Your task to perform on an android device: Search for a 100 ft extension cord Image 0: 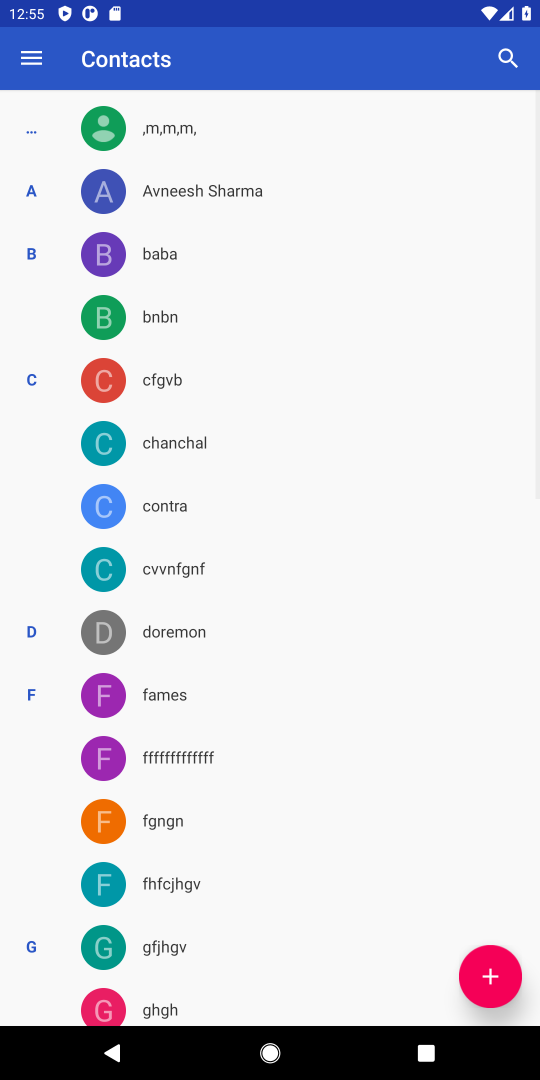
Step 0: press home button
Your task to perform on an android device: Search for a 100 ft extension cord Image 1: 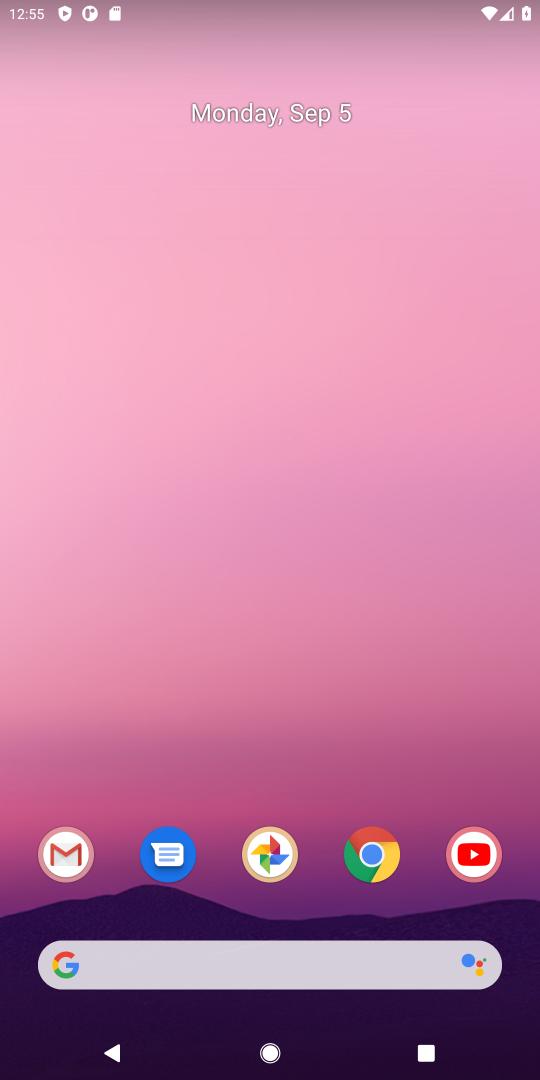
Step 1: click (372, 851)
Your task to perform on an android device: Search for a 100 ft extension cord Image 2: 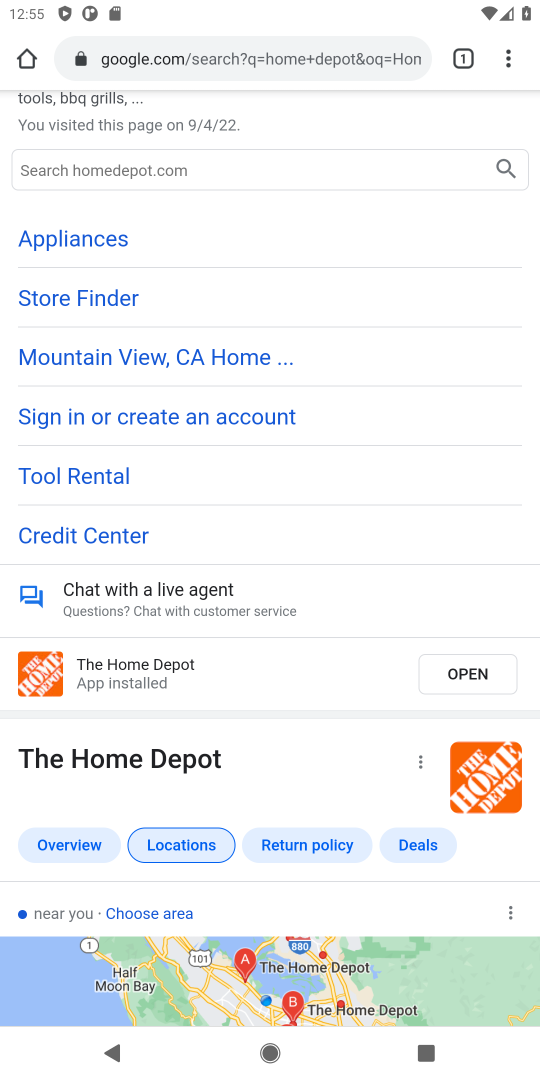
Step 2: click (372, 854)
Your task to perform on an android device: Search for a 100 ft extension cord Image 3: 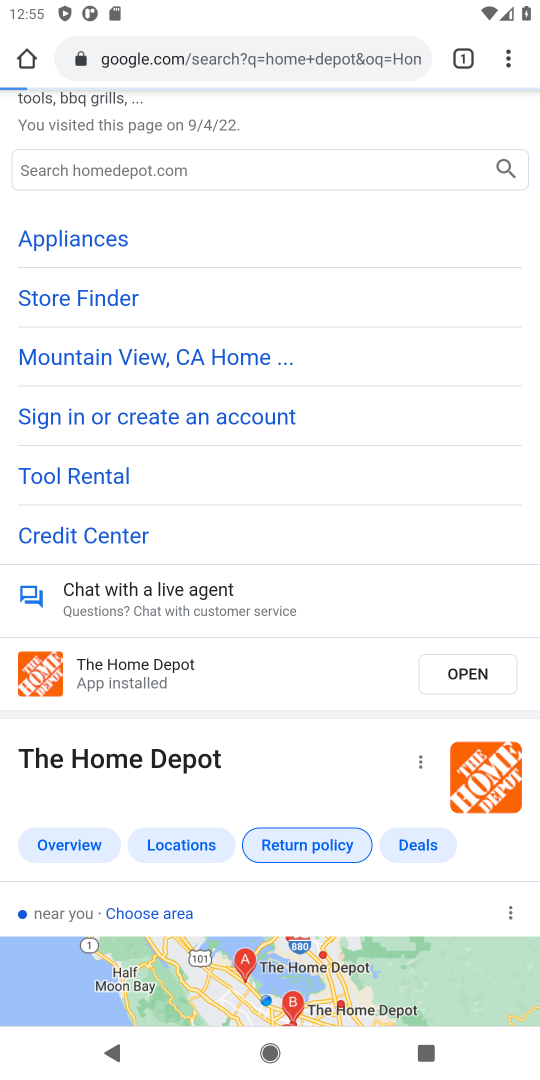
Step 3: click (182, 66)
Your task to perform on an android device: Search for a 100 ft extension cord Image 4: 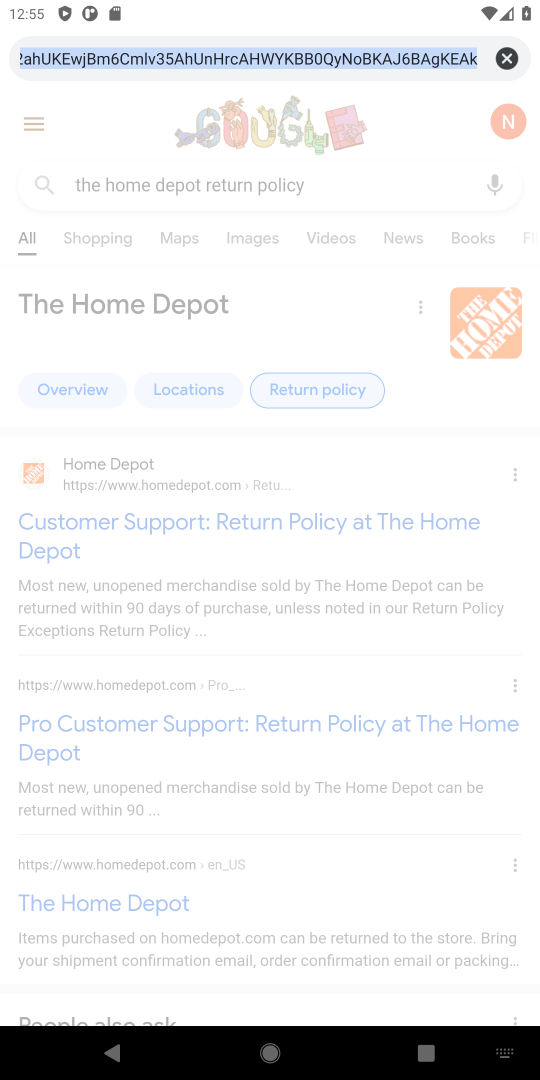
Step 4: click (505, 52)
Your task to perform on an android device: Search for a 100 ft extension cord Image 5: 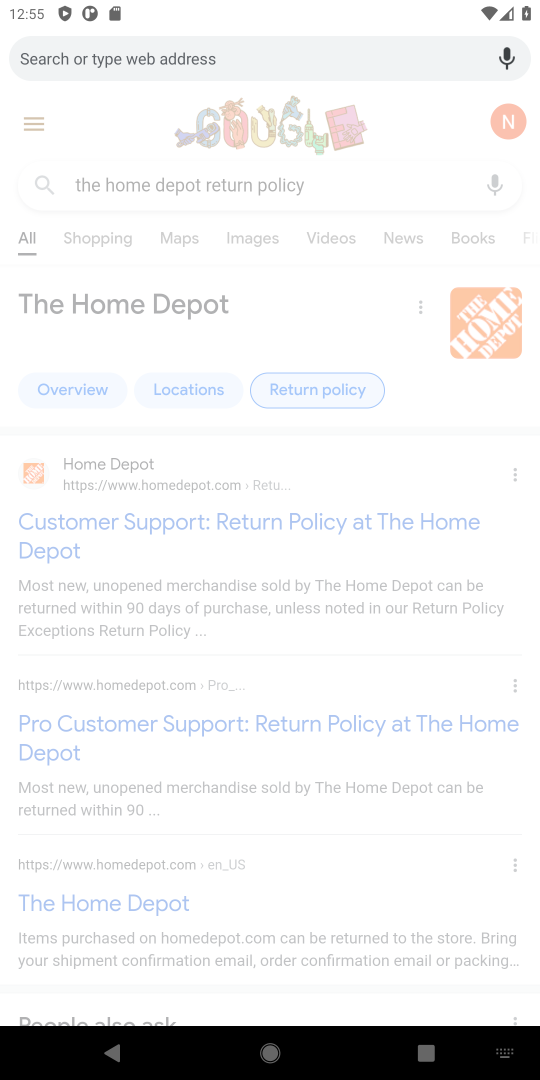
Step 5: press enter
Your task to perform on an android device: Search for a 100 ft extension cord Image 6: 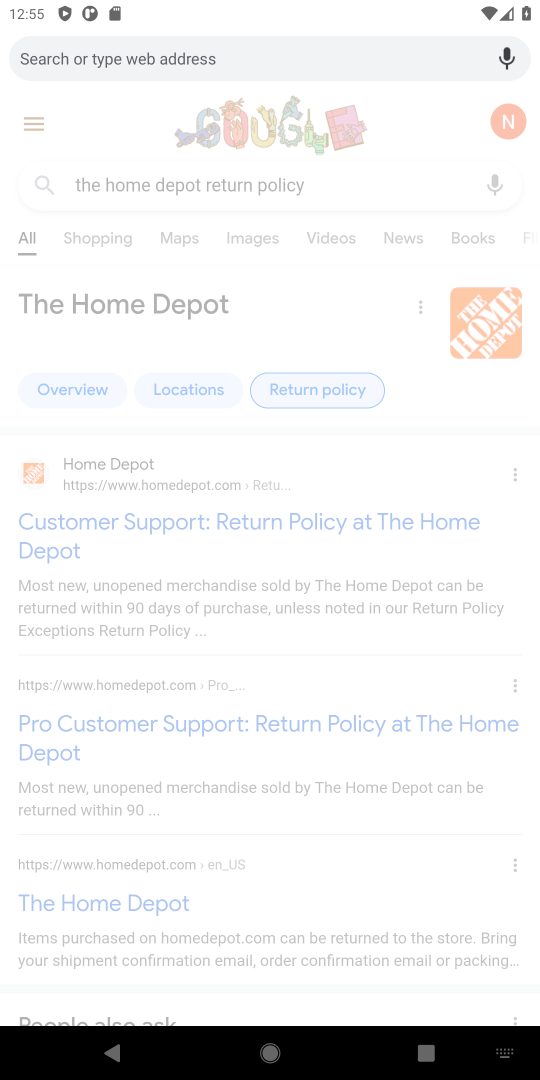
Step 6: type " 100 ft extension cord"
Your task to perform on an android device: Search for a 100 ft extension cord Image 7: 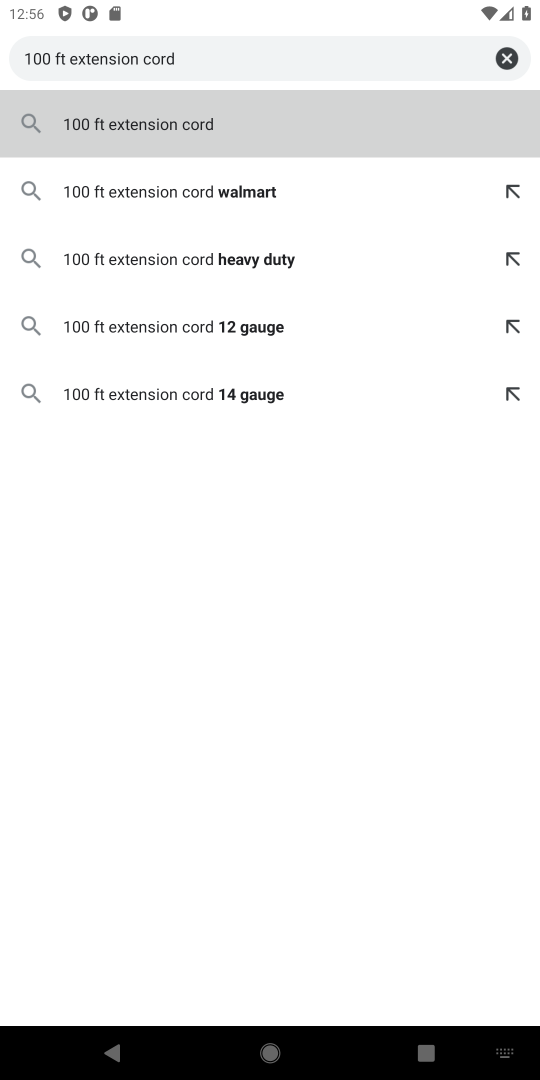
Step 7: click (138, 111)
Your task to perform on an android device: Search for a 100 ft extension cord Image 8: 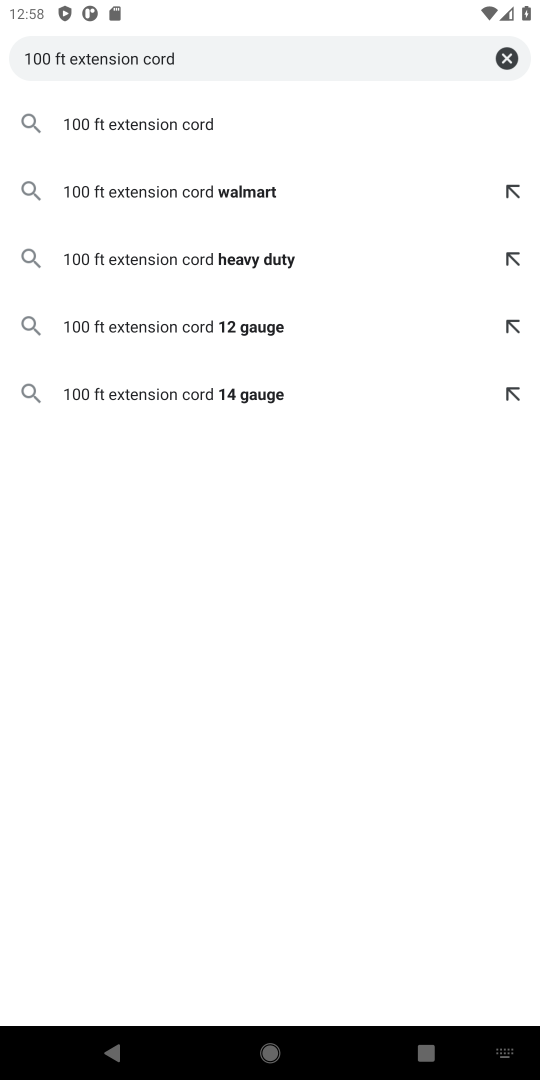
Step 8: click (186, 116)
Your task to perform on an android device: Search for a 100 ft extension cord Image 9: 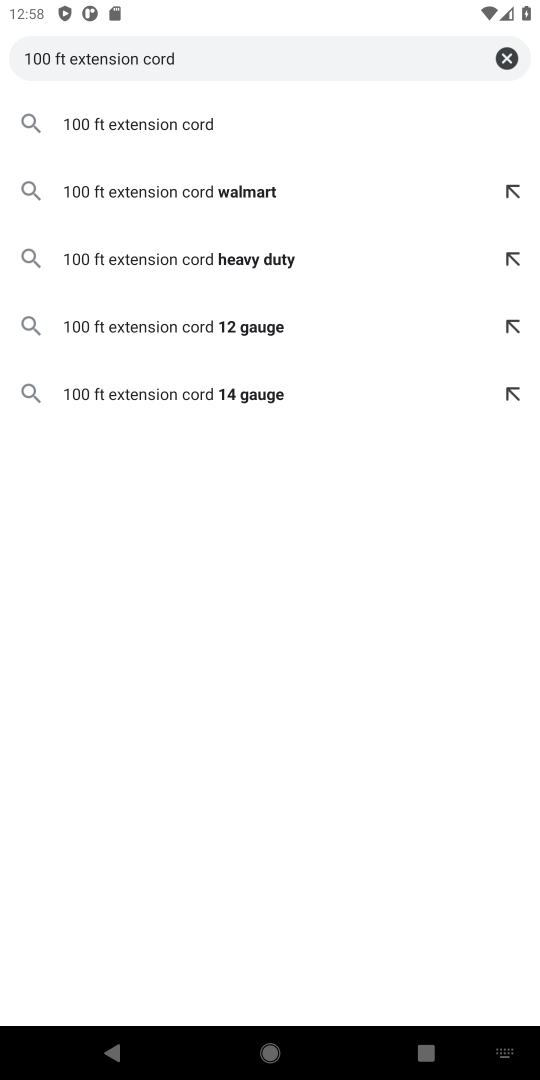
Step 9: click (186, 119)
Your task to perform on an android device: Search for a 100 ft extension cord Image 10: 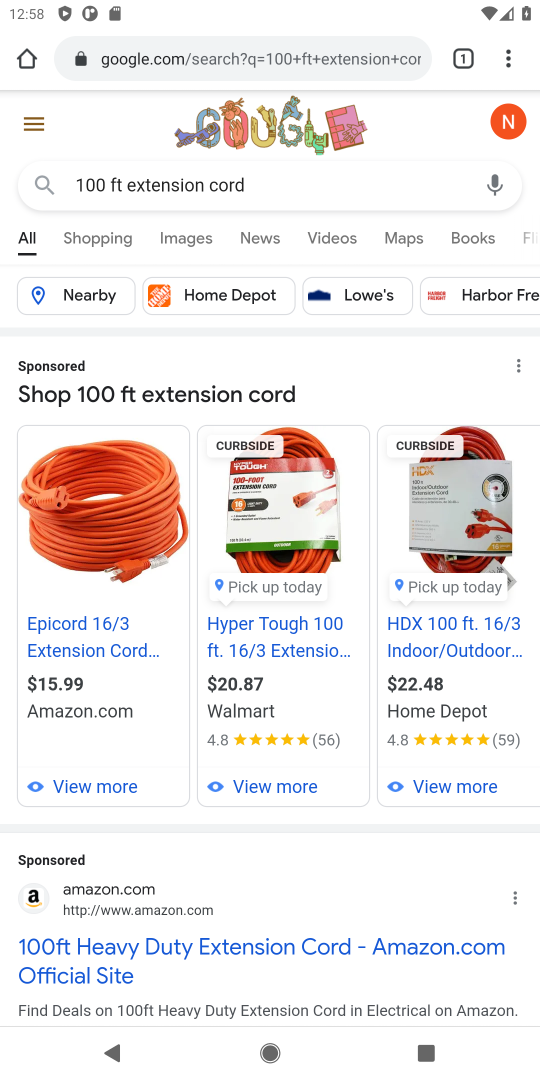
Step 10: task complete